Your task to perform on an android device: turn on the 12-hour format for clock Image 0: 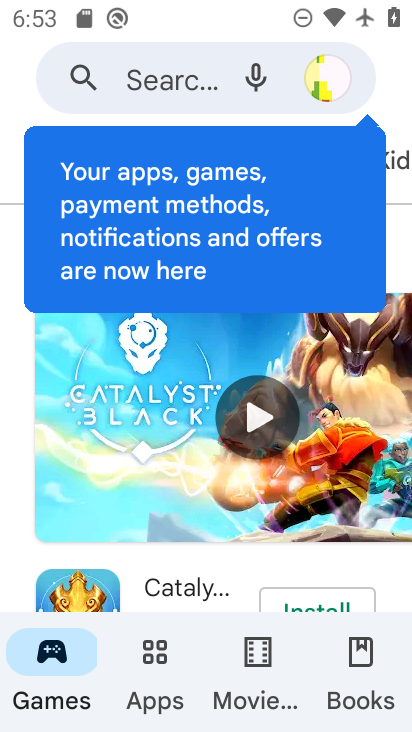
Step 0: press home button
Your task to perform on an android device: turn on the 12-hour format for clock Image 1: 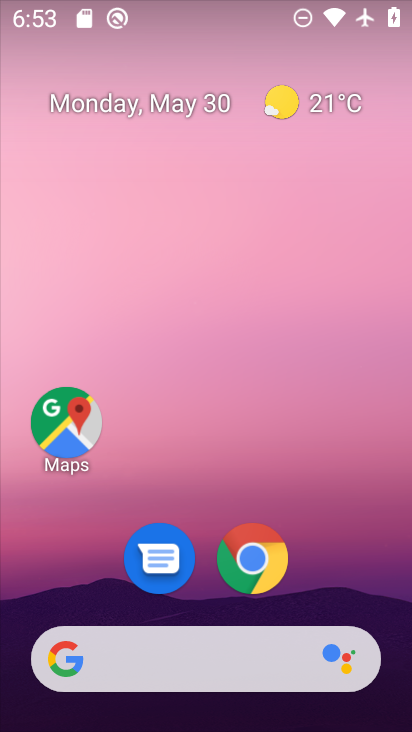
Step 1: drag from (333, 524) to (248, 18)
Your task to perform on an android device: turn on the 12-hour format for clock Image 2: 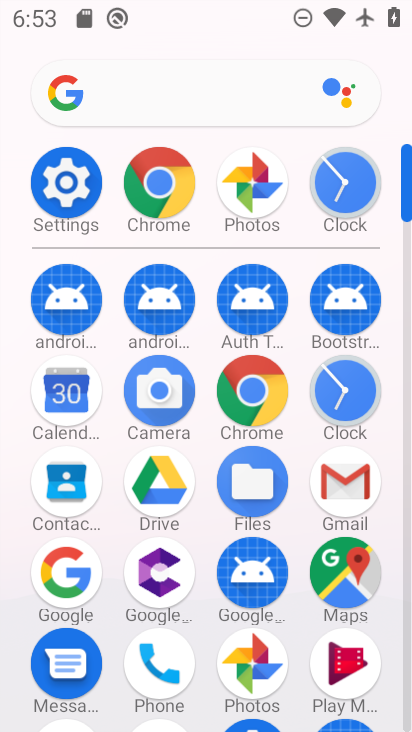
Step 2: click (346, 181)
Your task to perform on an android device: turn on the 12-hour format for clock Image 3: 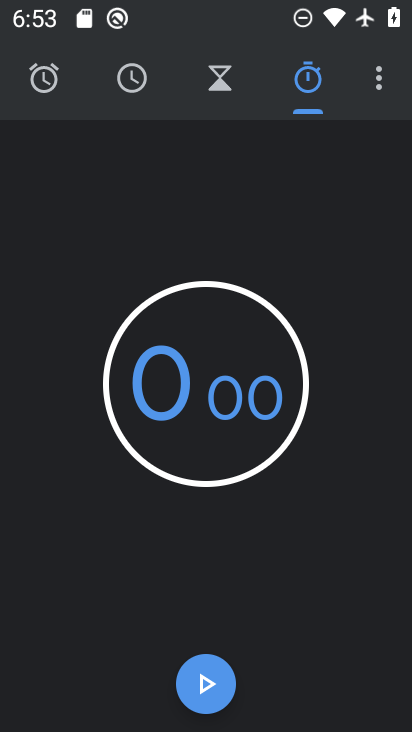
Step 3: click (374, 68)
Your task to perform on an android device: turn on the 12-hour format for clock Image 4: 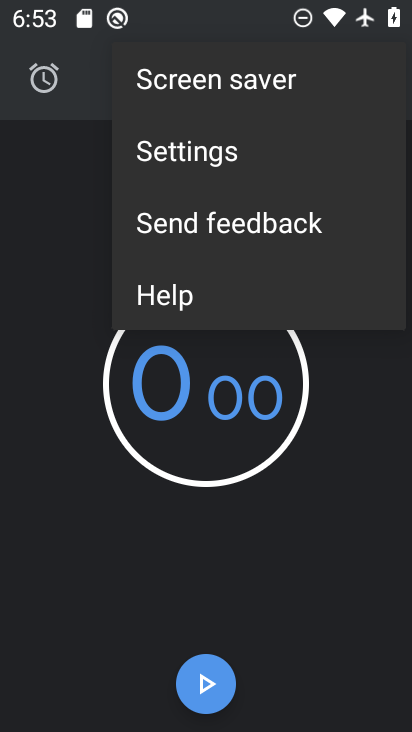
Step 4: click (225, 155)
Your task to perform on an android device: turn on the 12-hour format for clock Image 5: 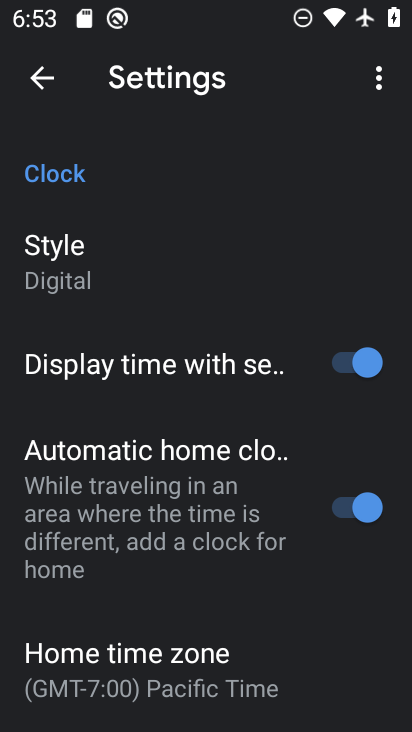
Step 5: drag from (239, 597) to (246, 306)
Your task to perform on an android device: turn on the 12-hour format for clock Image 6: 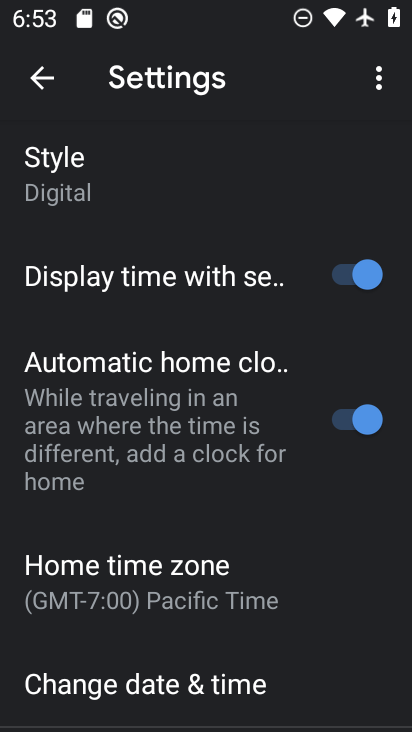
Step 6: click (201, 687)
Your task to perform on an android device: turn on the 12-hour format for clock Image 7: 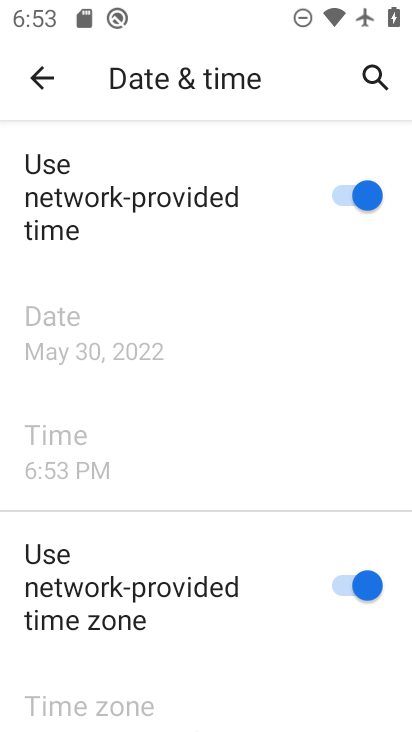
Step 7: task complete